Your task to perform on an android device: Go to notification settings Image 0: 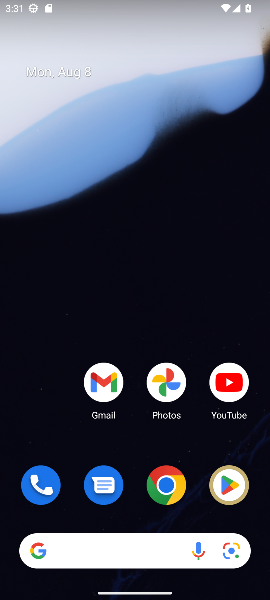
Step 0: drag from (103, 476) to (94, 165)
Your task to perform on an android device: Go to notification settings Image 1: 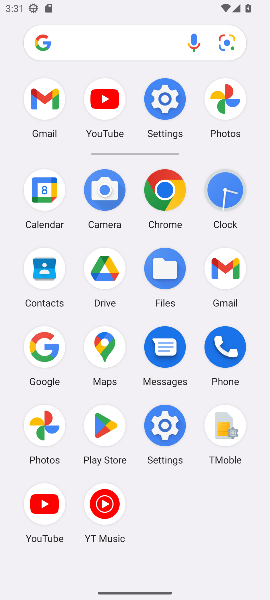
Step 1: click (162, 423)
Your task to perform on an android device: Go to notification settings Image 2: 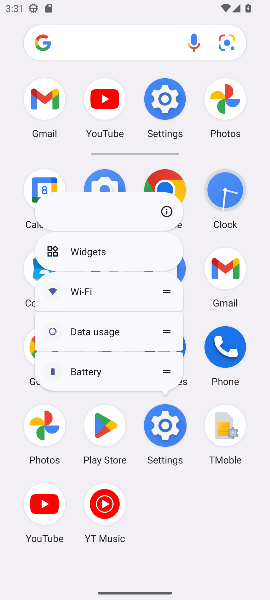
Step 2: click (162, 423)
Your task to perform on an android device: Go to notification settings Image 3: 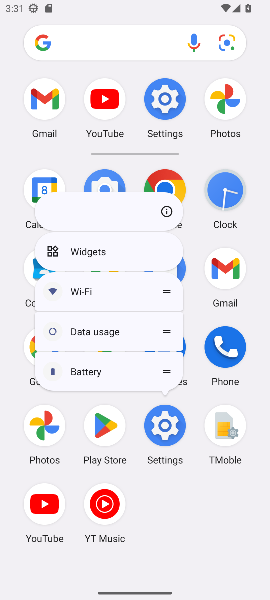
Step 3: click (162, 423)
Your task to perform on an android device: Go to notification settings Image 4: 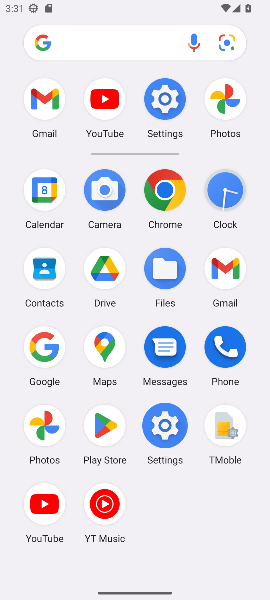
Step 4: click (162, 422)
Your task to perform on an android device: Go to notification settings Image 5: 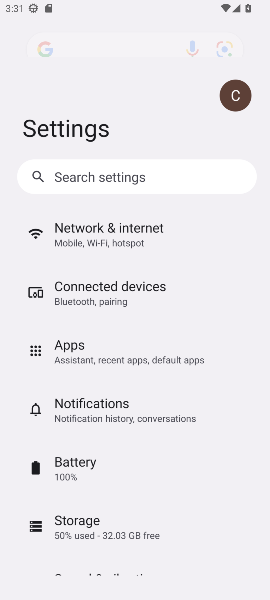
Step 5: click (164, 421)
Your task to perform on an android device: Go to notification settings Image 6: 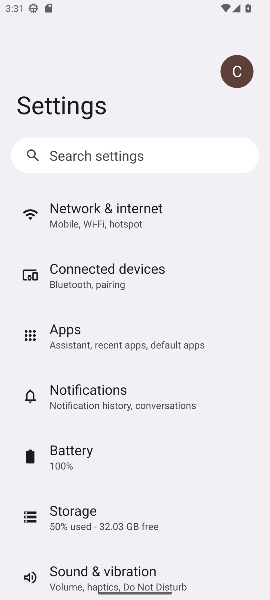
Step 6: click (90, 405)
Your task to perform on an android device: Go to notification settings Image 7: 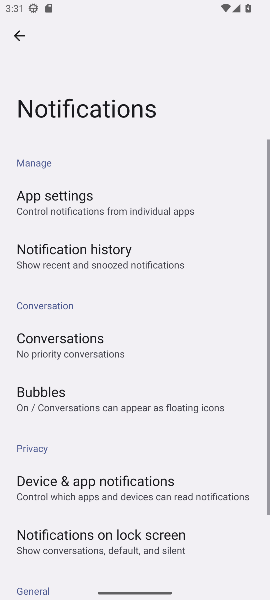
Step 7: click (83, 375)
Your task to perform on an android device: Go to notification settings Image 8: 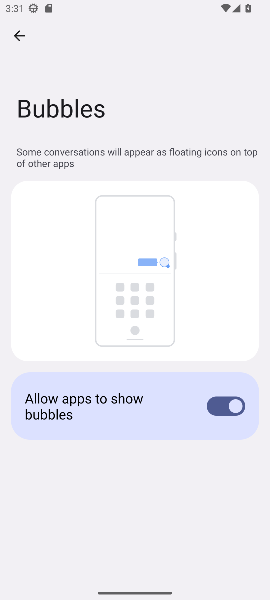
Step 8: click (22, 31)
Your task to perform on an android device: Go to notification settings Image 9: 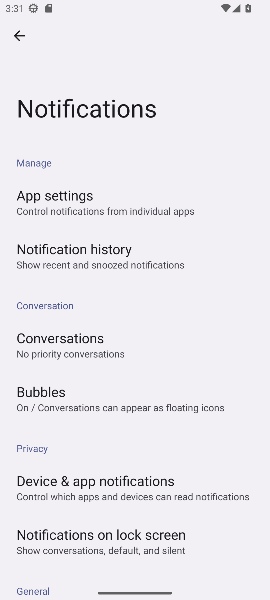
Step 9: click (62, 267)
Your task to perform on an android device: Go to notification settings Image 10: 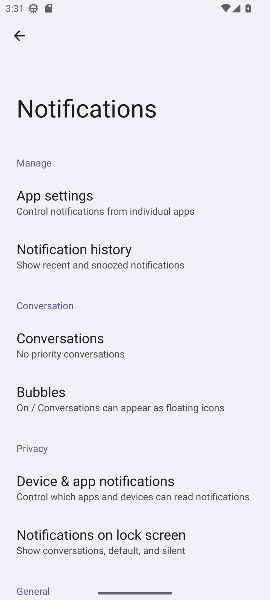
Step 10: click (62, 267)
Your task to perform on an android device: Go to notification settings Image 11: 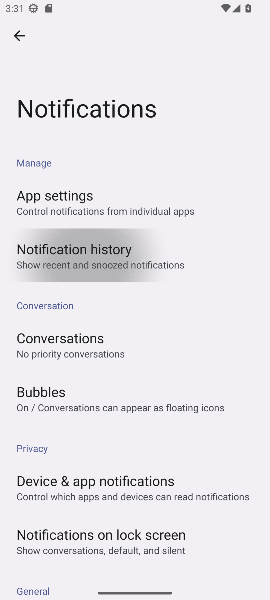
Step 11: click (62, 267)
Your task to perform on an android device: Go to notification settings Image 12: 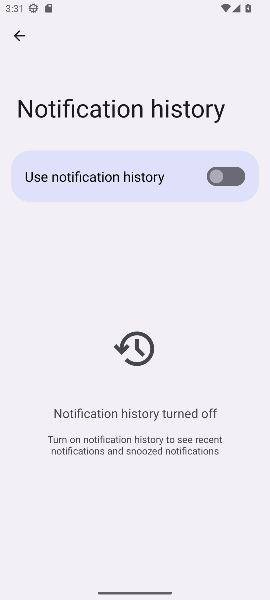
Step 12: task complete